Your task to perform on an android device: allow notifications from all sites in the chrome app Image 0: 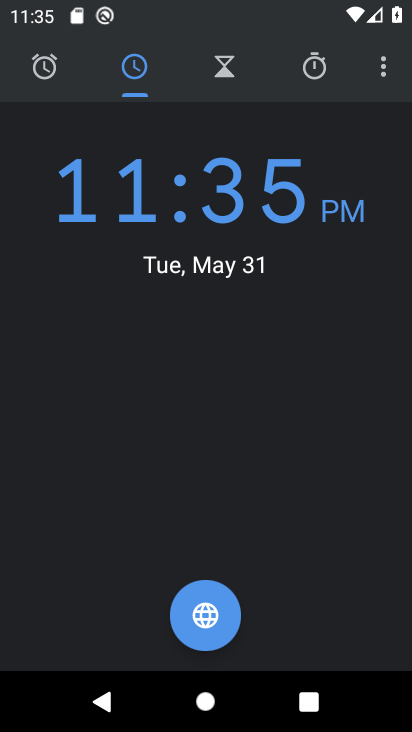
Step 0: press home button
Your task to perform on an android device: allow notifications from all sites in the chrome app Image 1: 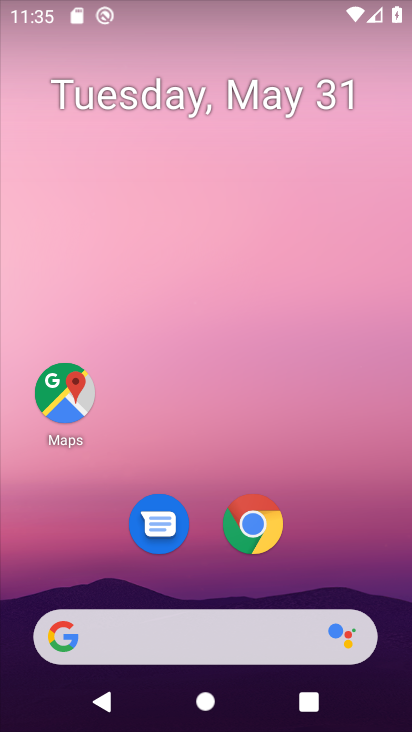
Step 1: click (263, 523)
Your task to perform on an android device: allow notifications from all sites in the chrome app Image 2: 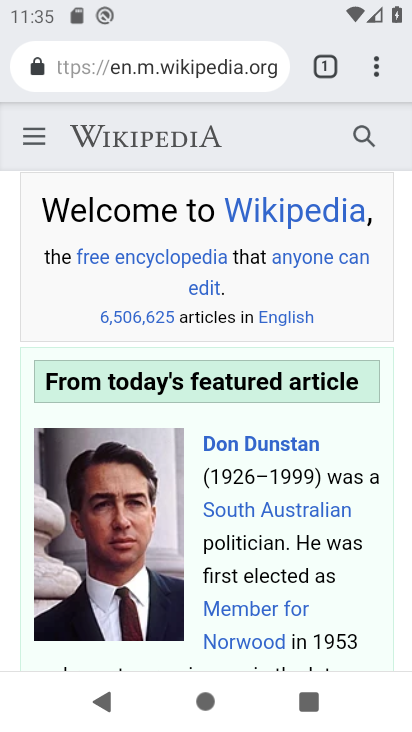
Step 2: click (372, 59)
Your task to perform on an android device: allow notifications from all sites in the chrome app Image 3: 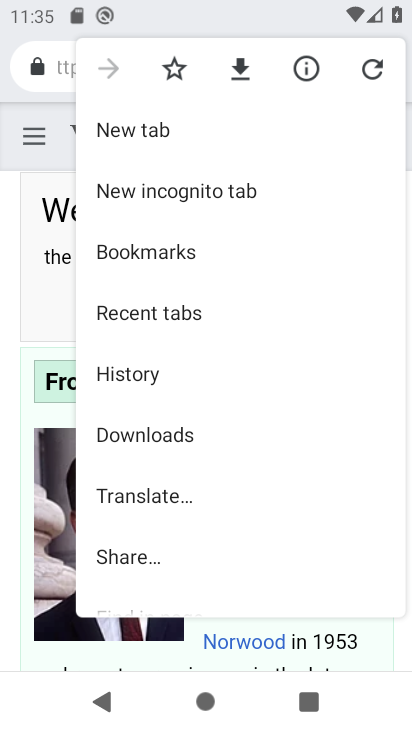
Step 3: drag from (247, 449) to (253, 174)
Your task to perform on an android device: allow notifications from all sites in the chrome app Image 4: 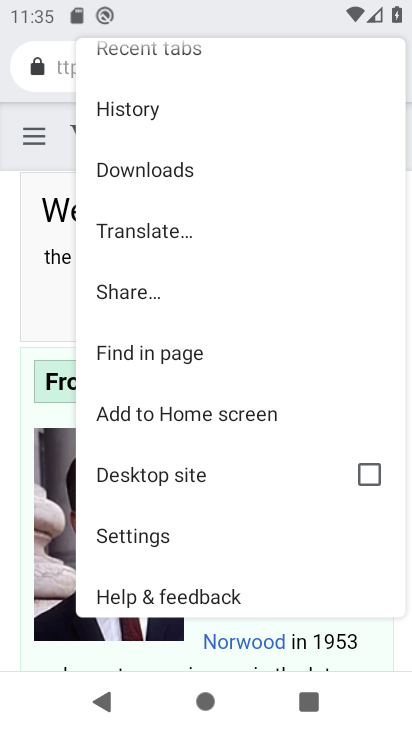
Step 4: click (204, 543)
Your task to perform on an android device: allow notifications from all sites in the chrome app Image 5: 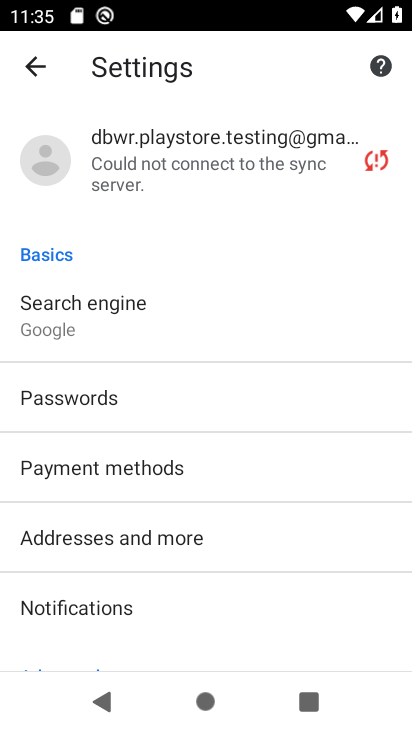
Step 5: click (233, 599)
Your task to perform on an android device: allow notifications from all sites in the chrome app Image 6: 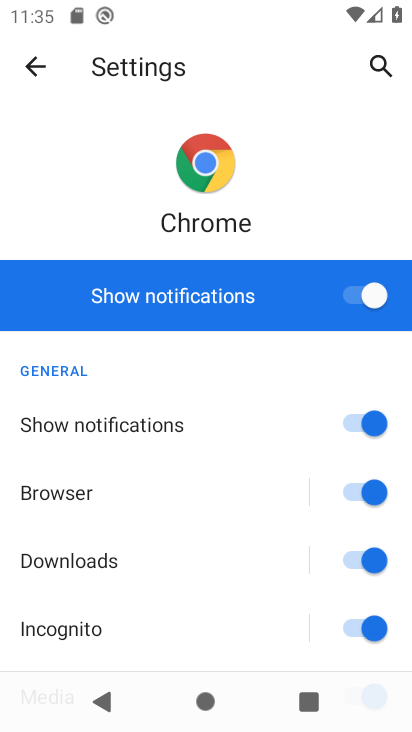
Step 6: task complete